Your task to perform on an android device: change alarm snooze length Image 0: 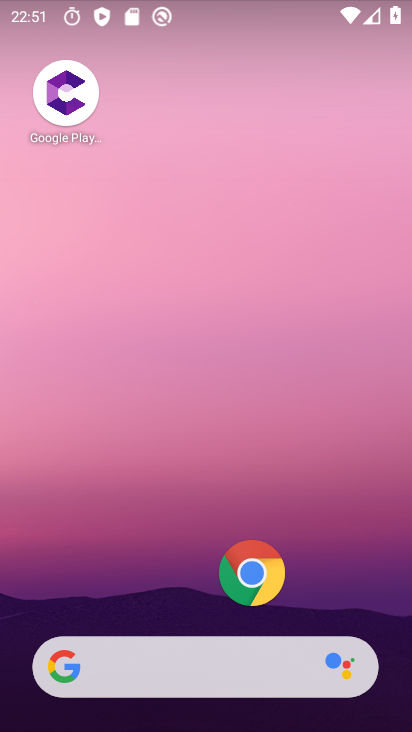
Step 0: drag from (163, 598) to (192, 63)
Your task to perform on an android device: change alarm snooze length Image 1: 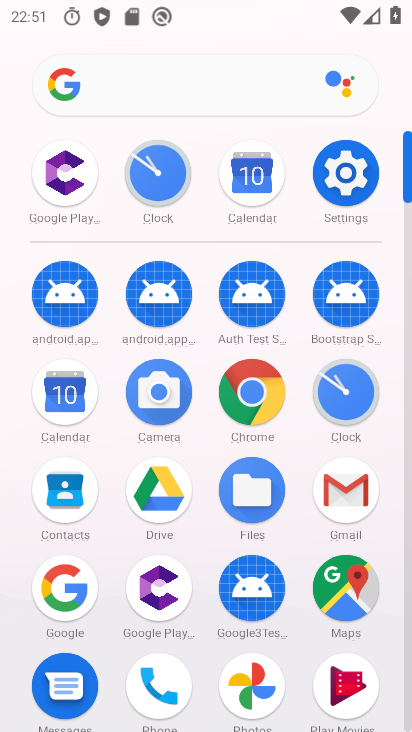
Step 1: click (347, 393)
Your task to perform on an android device: change alarm snooze length Image 2: 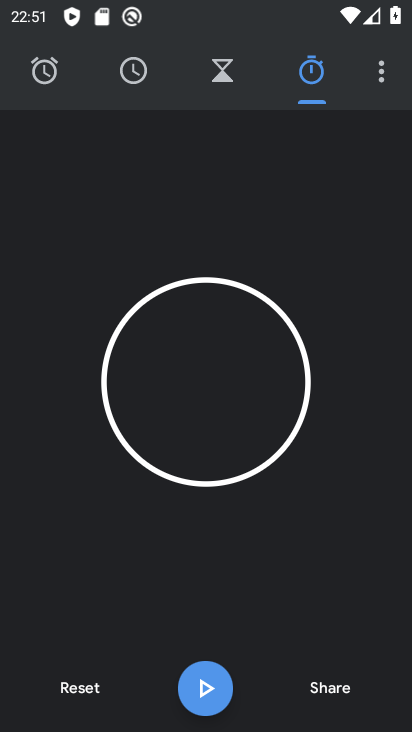
Step 2: click (371, 69)
Your task to perform on an android device: change alarm snooze length Image 3: 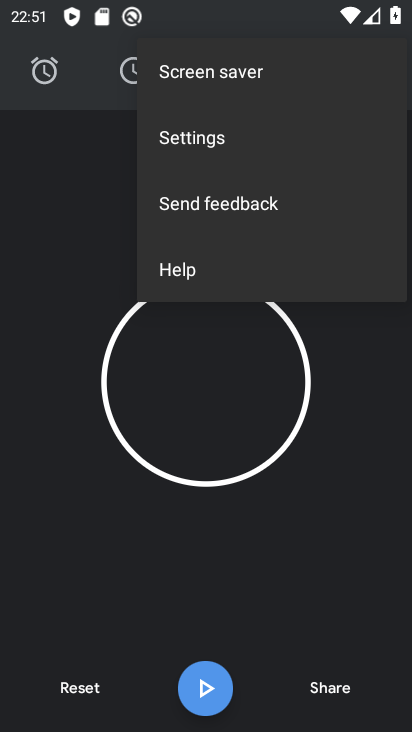
Step 3: click (226, 139)
Your task to perform on an android device: change alarm snooze length Image 4: 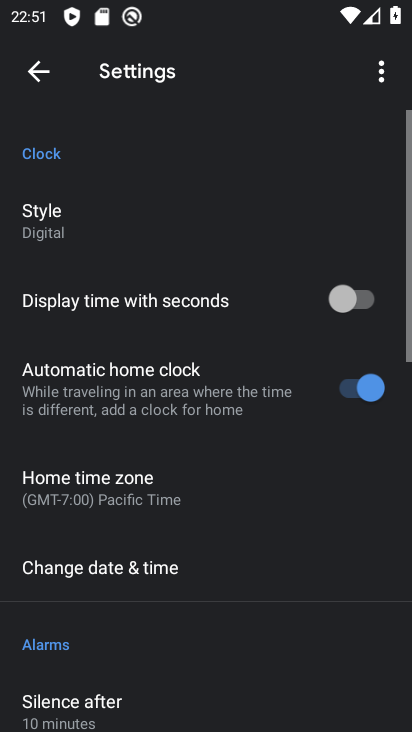
Step 4: drag from (163, 638) to (187, 371)
Your task to perform on an android device: change alarm snooze length Image 5: 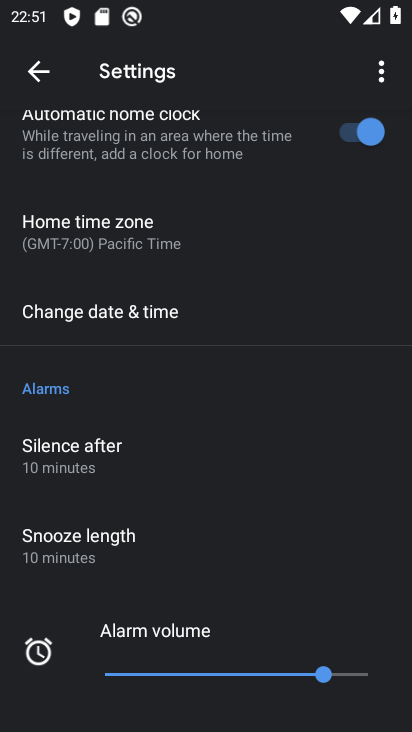
Step 5: click (74, 553)
Your task to perform on an android device: change alarm snooze length Image 6: 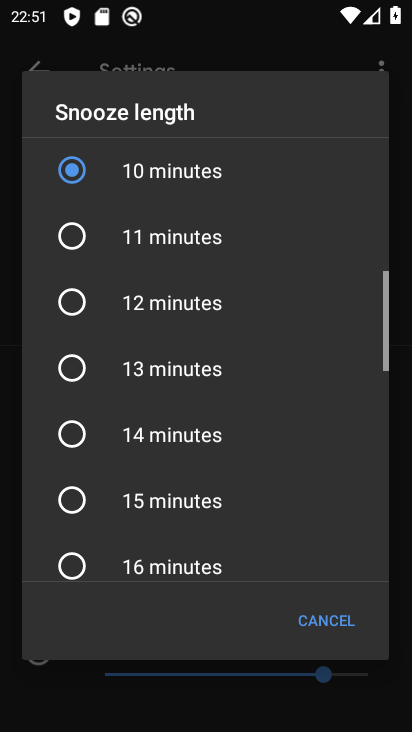
Step 6: click (75, 229)
Your task to perform on an android device: change alarm snooze length Image 7: 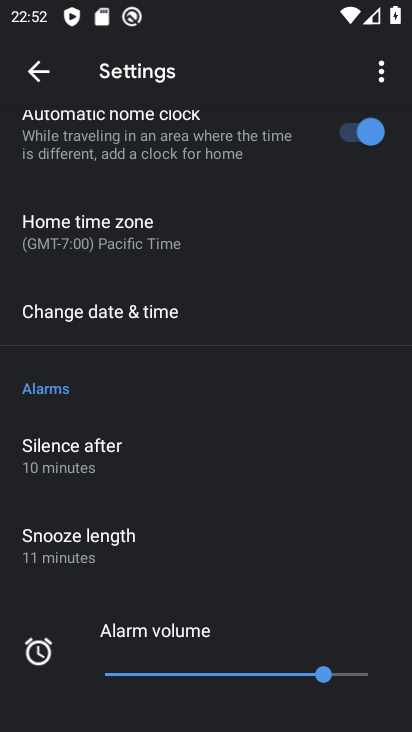
Step 7: task complete